Your task to perform on an android device: change the clock display to analog Image 0: 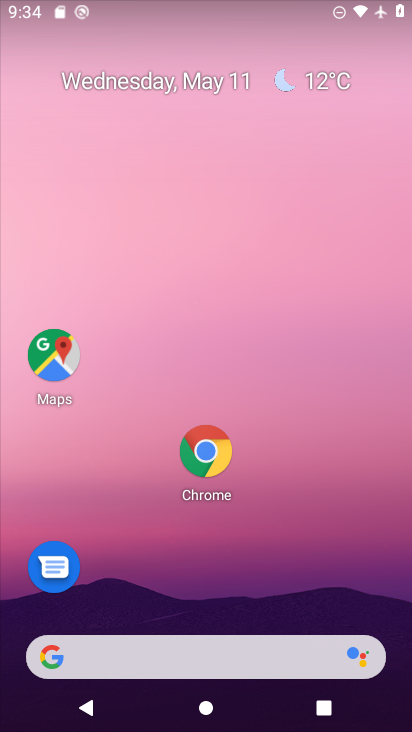
Step 0: drag from (193, 603) to (311, 153)
Your task to perform on an android device: change the clock display to analog Image 1: 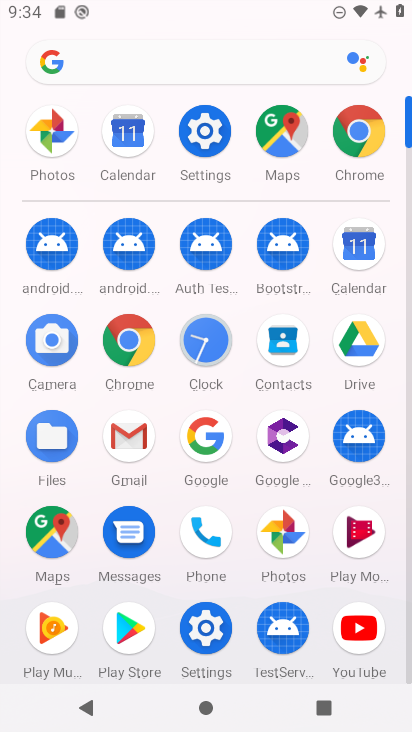
Step 1: click (215, 332)
Your task to perform on an android device: change the clock display to analog Image 2: 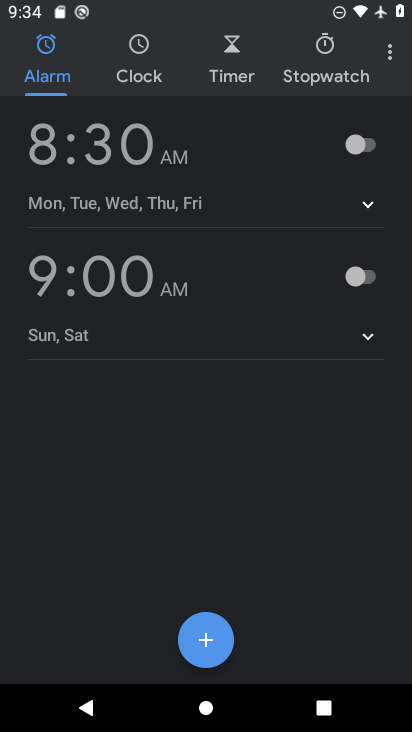
Step 2: click (391, 51)
Your task to perform on an android device: change the clock display to analog Image 3: 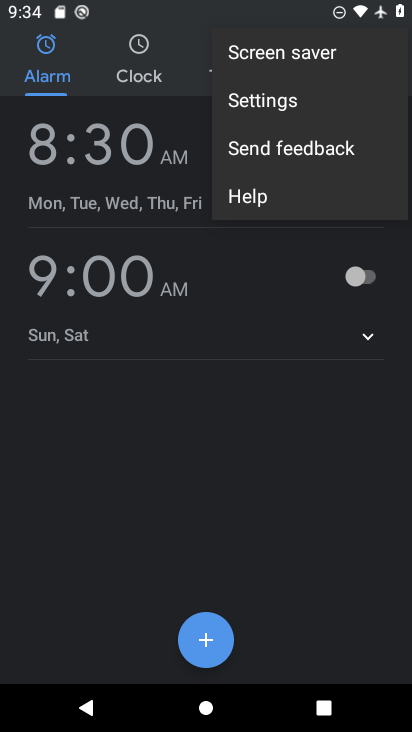
Step 3: click (269, 107)
Your task to perform on an android device: change the clock display to analog Image 4: 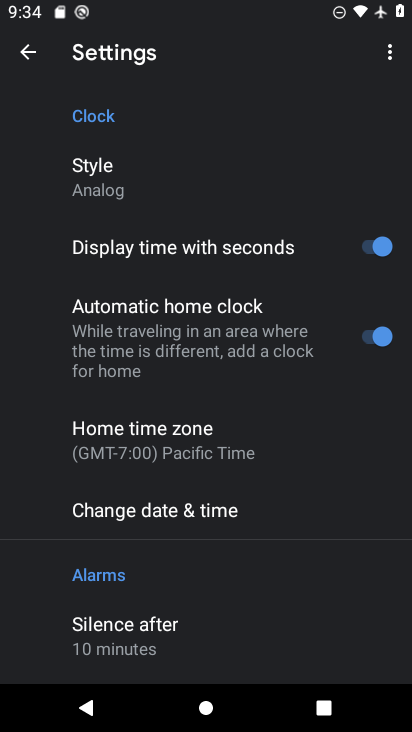
Step 4: task complete